Your task to perform on an android device: open app "Google Play Games" (install if not already installed) Image 0: 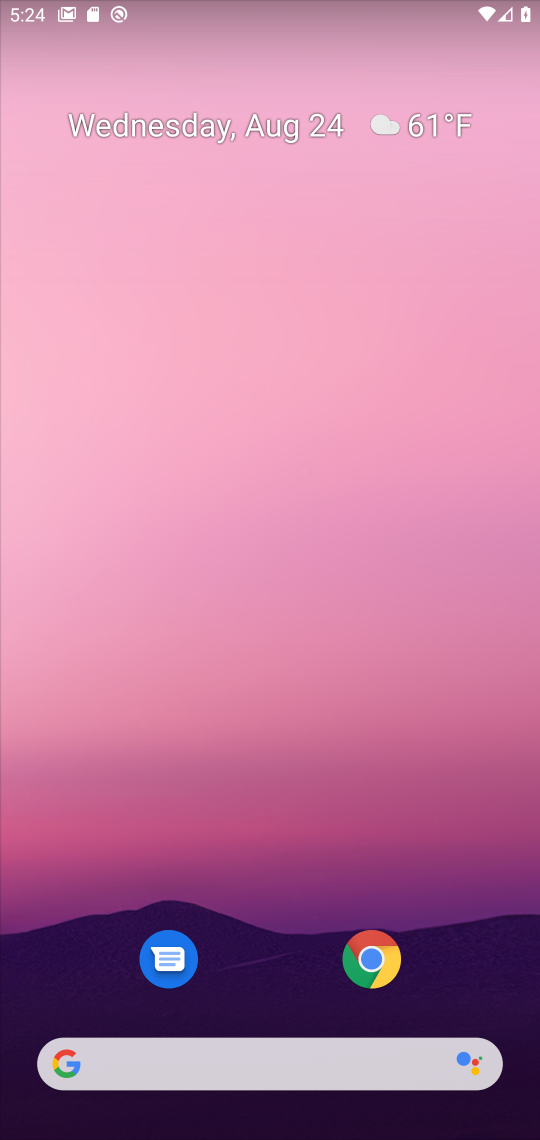
Step 0: drag from (240, 871) to (195, 477)
Your task to perform on an android device: open app "Google Play Games" (install if not already installed) Image 1: 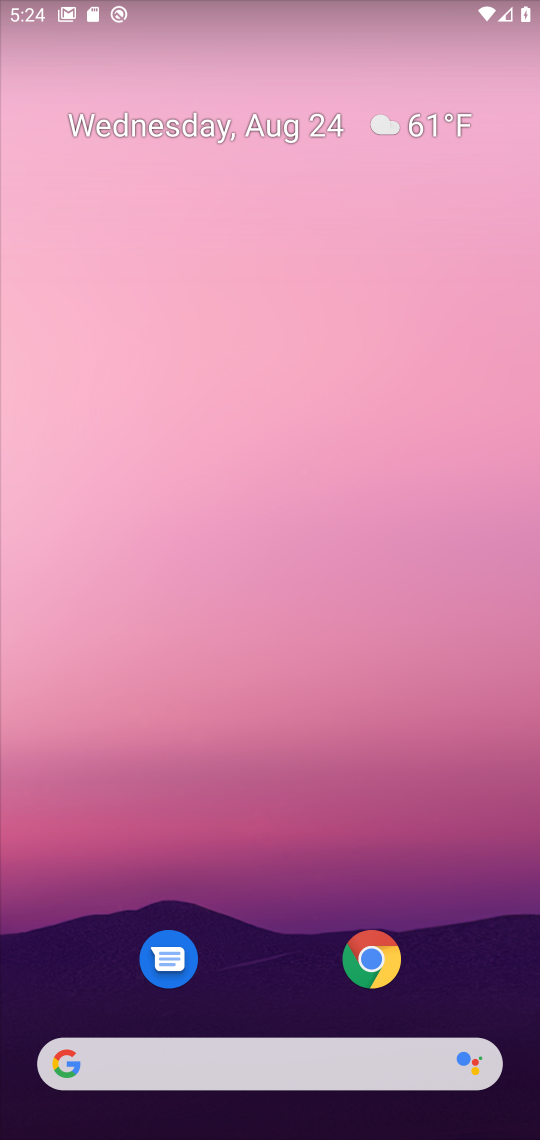
Step 1: drag from (290, 1019) to (199, 425)
Your task to perform on an android device: open app "Google Play Games" (install if not already installed) Image 2: 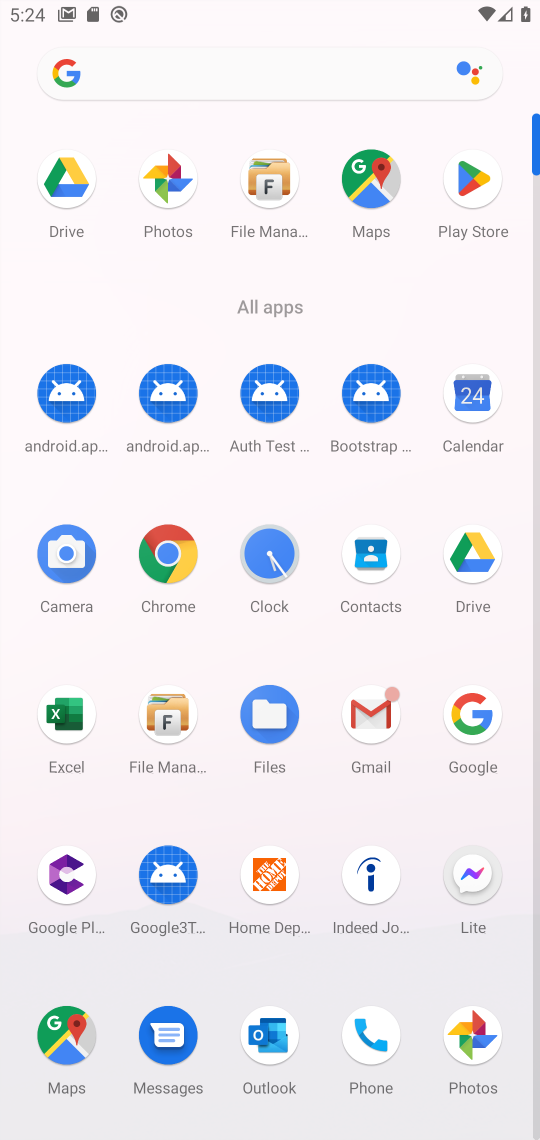
Step 2: click (445, 182)
Your task to perform on an android device: open app "Google Play Games" (install if not already installed) Image 3: 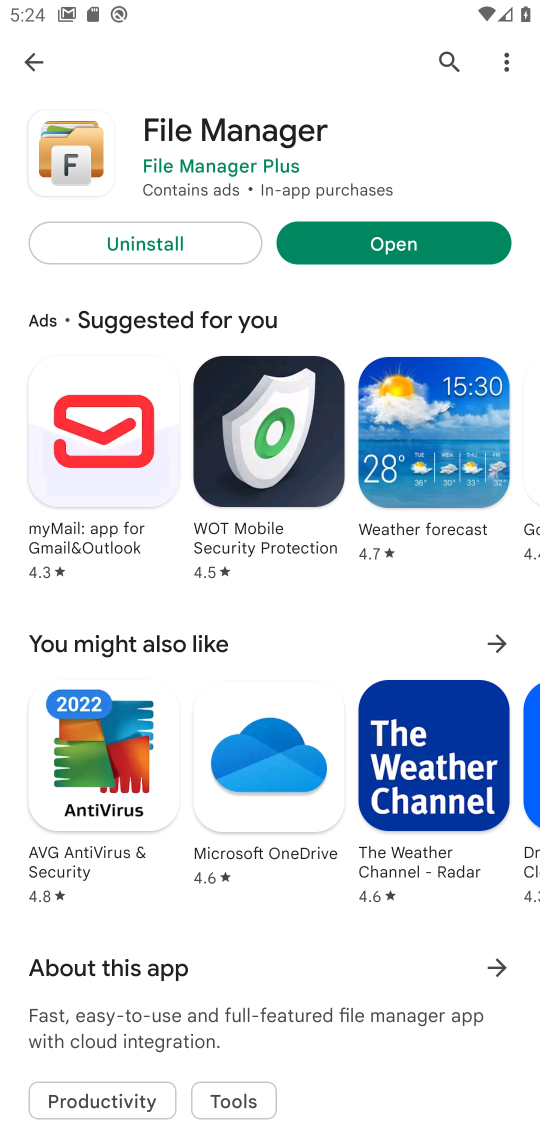
Step 3: click (449, 70)
Your task to perform on an android device: open app "Google Play Games" (install if not already installed) Image 4: 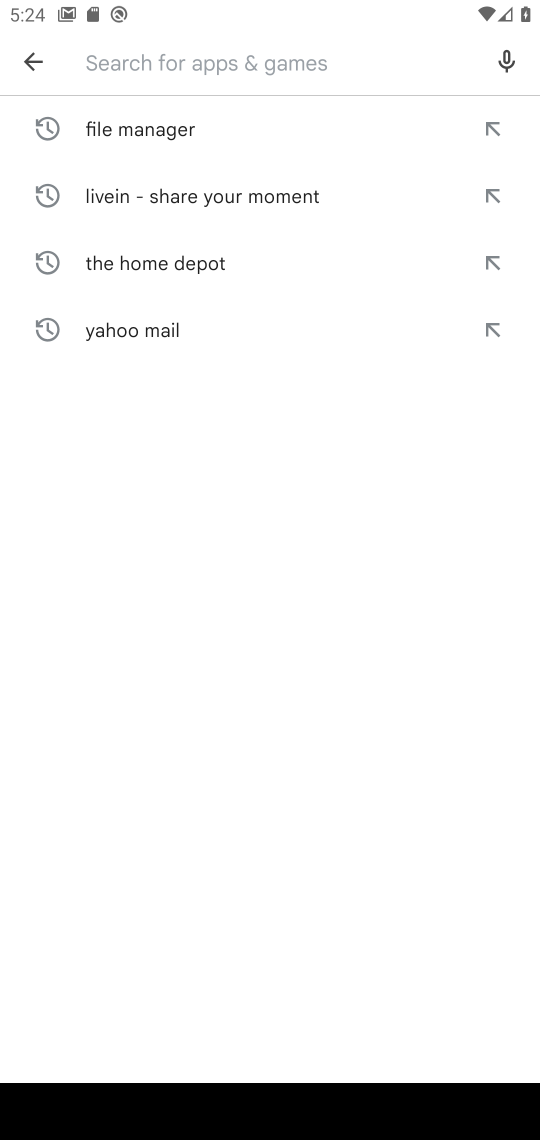
Step 4: type "Google Play Games"
Your task to perform on an android device: open app "Google Play Games" (install if not already installed) Image 5: 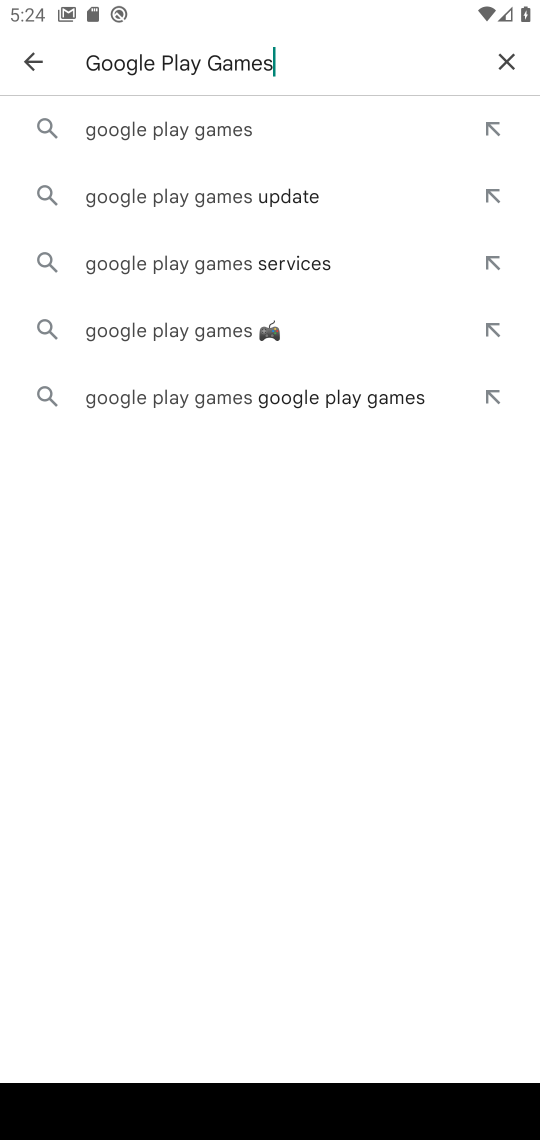
Step 5: click (182, 133)
Your task to perform on an android device: open app "Google Play Games" (install if not already installed) Image 6: 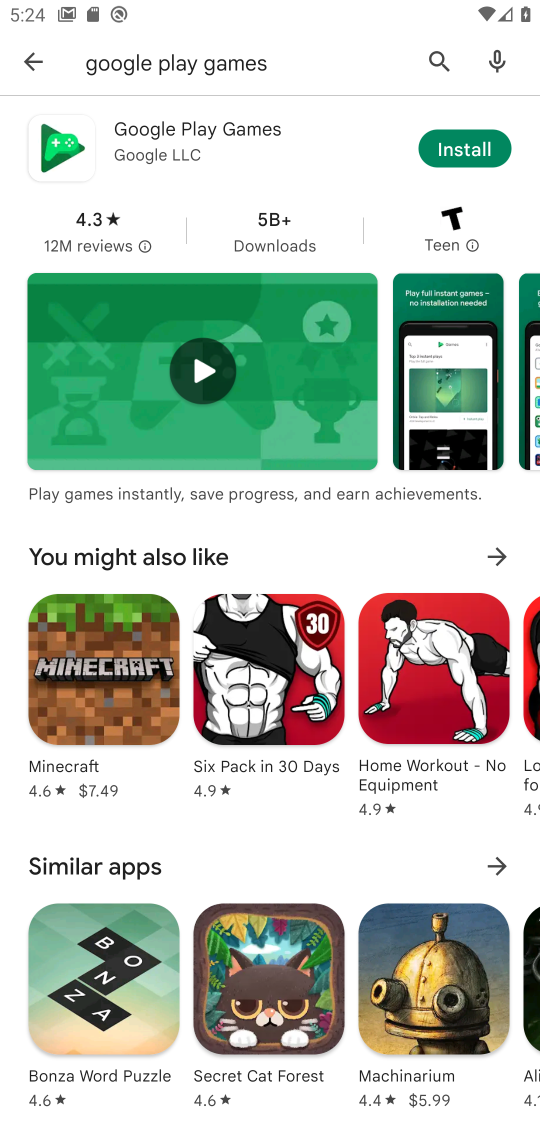
Step 6: click (471, 150)
Your task to perform on an android device: open app "Google Play Games" (install if not already installed) Image 7: 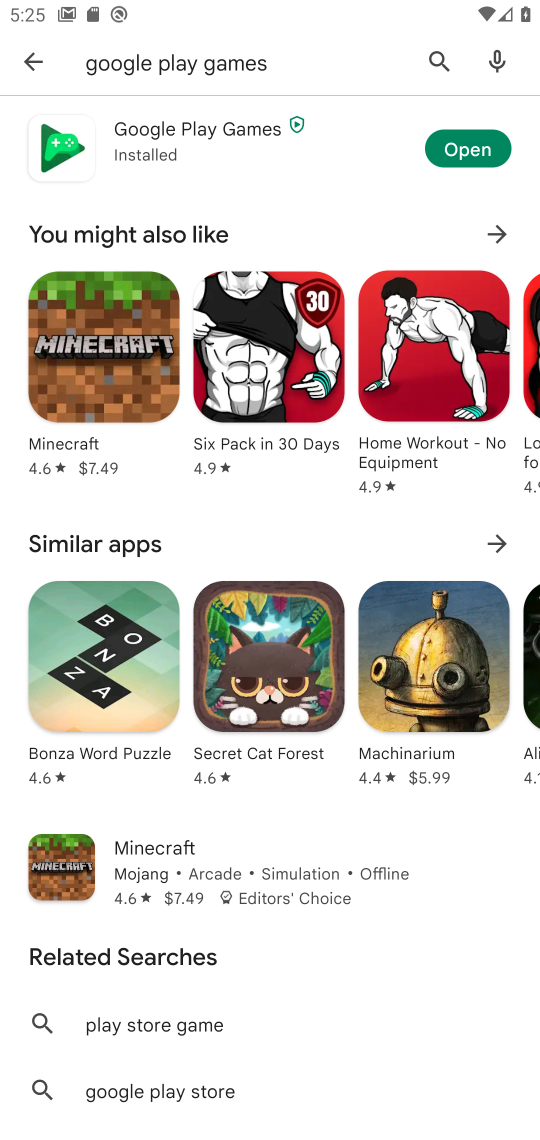
Step 7: click (466, 153)
Your task to perform on an android device: open app "Google Play Games" (install if not already installed) Image 8: 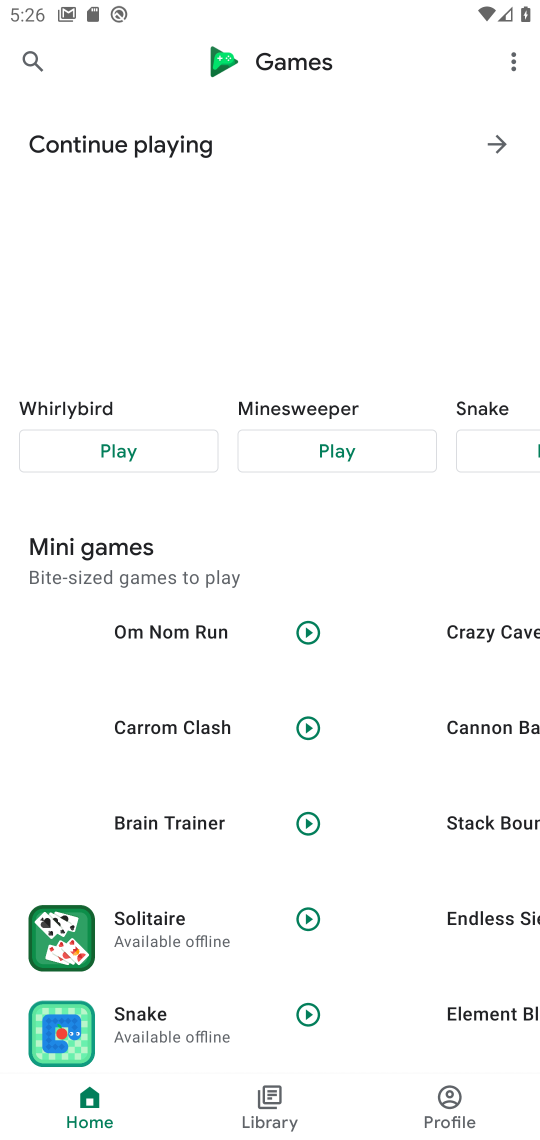
Step 8: task complete